Your task to perform on an android device: open sync settings in chrome Image 0: 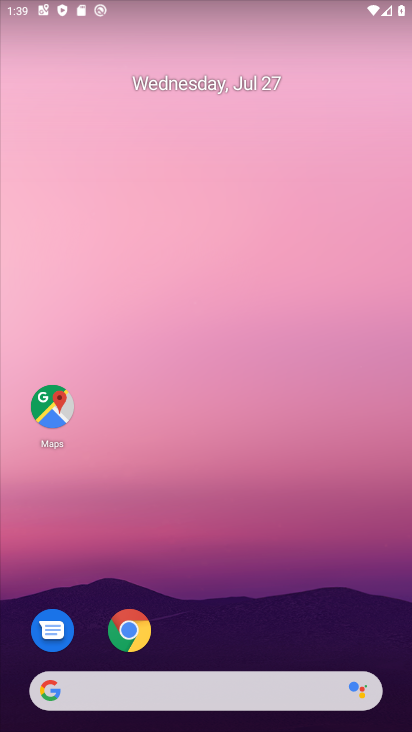
Step 0: click (128, 631)
Your task to perform on an android device: open sync settings in chrome Image 1: 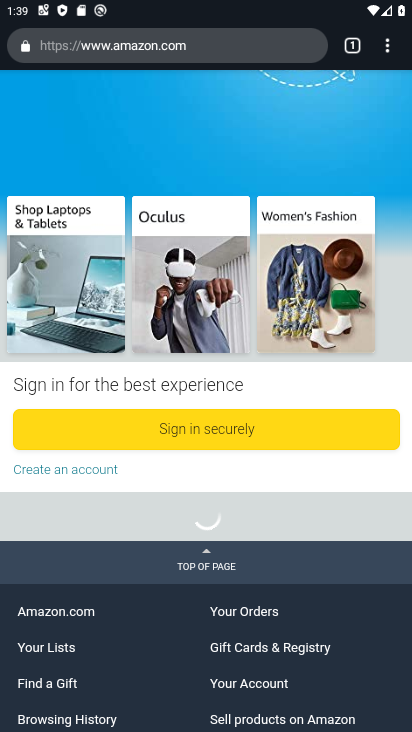
Step 1: click (387, 54)
Your task to perform on an android device: open sync settings in chrome Image 2: 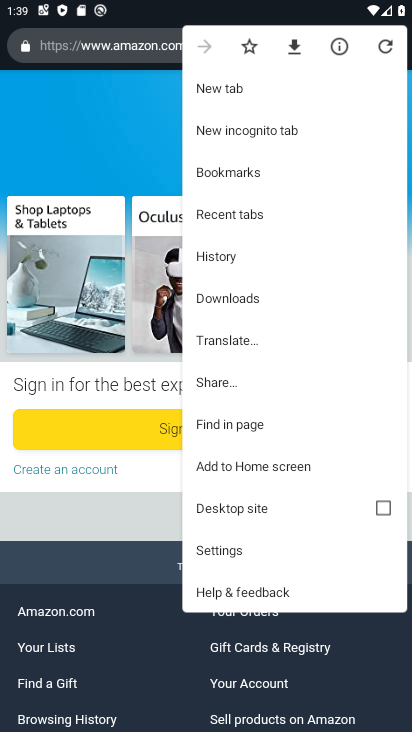
Step 2: click (219, 542)
Your task to perform on an android device: open sync settings in chrome Image 3: 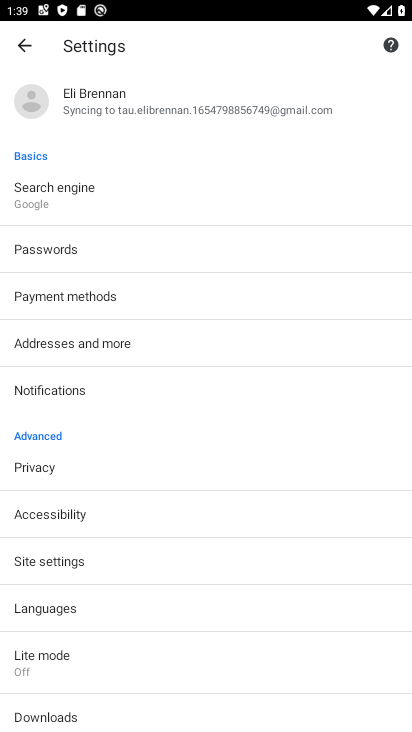
Step 3: click (105, 104)
Your task to perform on an android device: open sync settings in chrome Image 4: 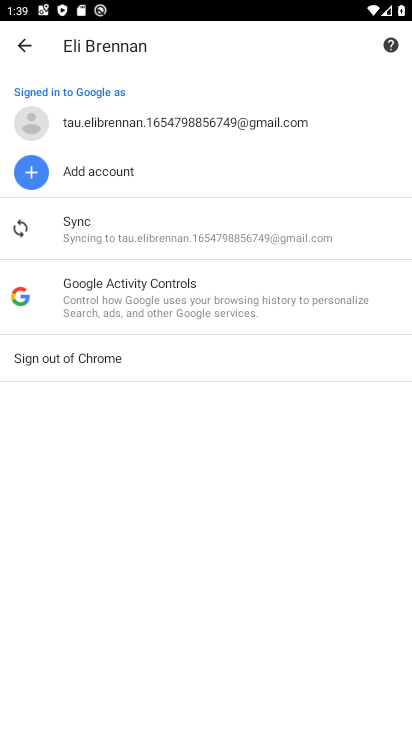
Step 4: click (81, 242)
Your task to perform on an android device: open sync settings in chrome Image 5: 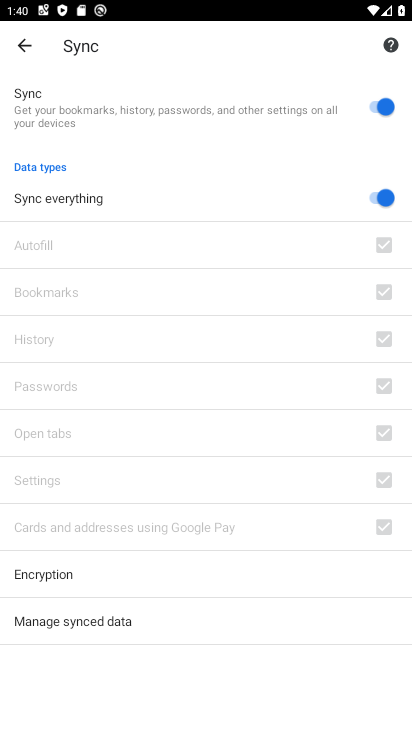
Step 5: task complete